Your task to perform on an android device: check google app version Image 0: 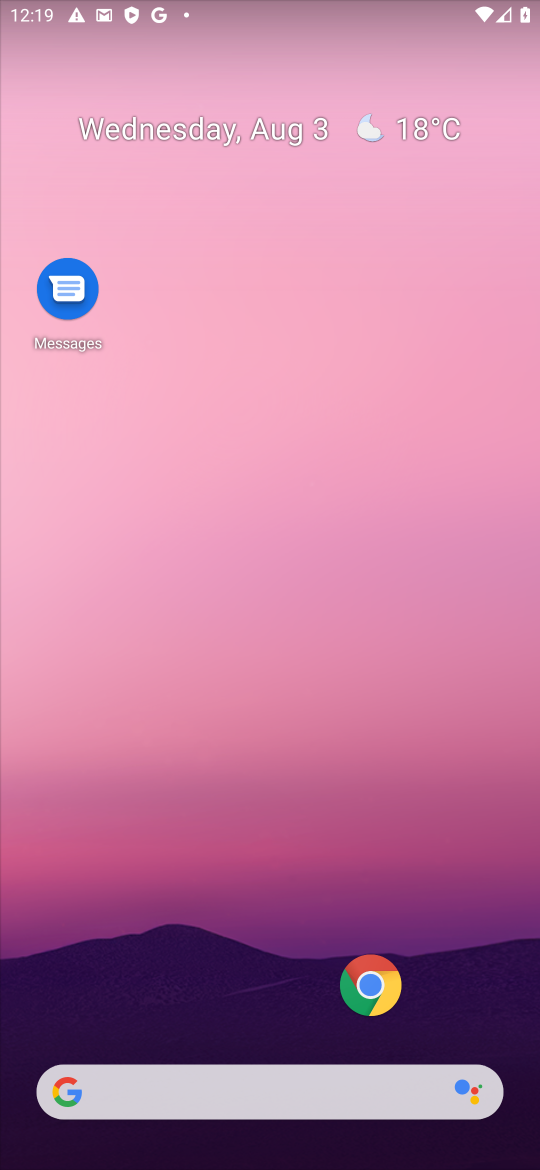
Step 0: task complete